Your task to perform on an android device: check data usage Image 0: 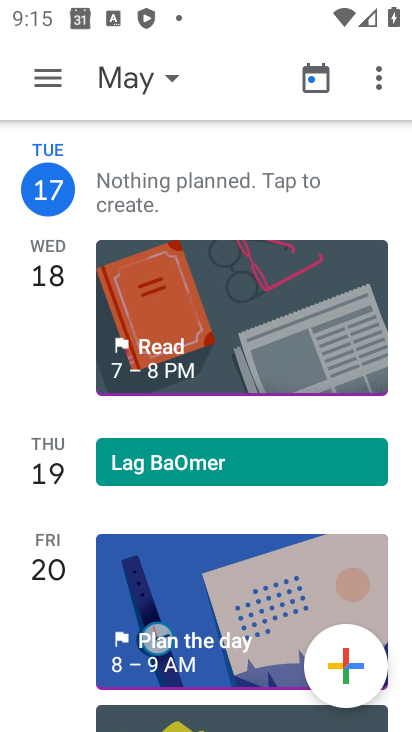
Step 0: press home button
Your task to perform on an android device: check data usage Image 1: 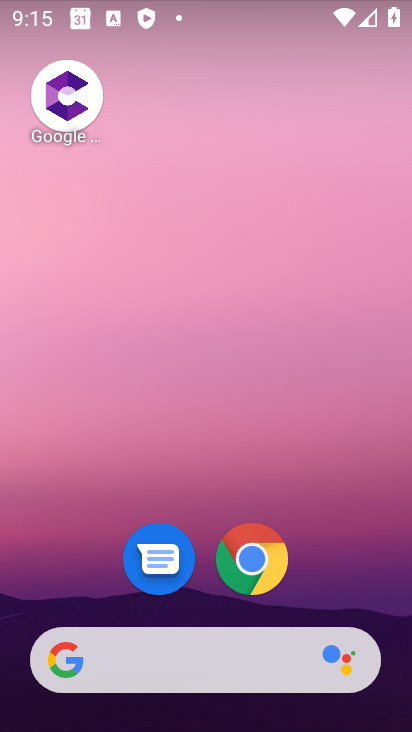
Step 1: drag from (227, 668) to (145, 288)
Your task to perform on an android device: check data usage Image 2: 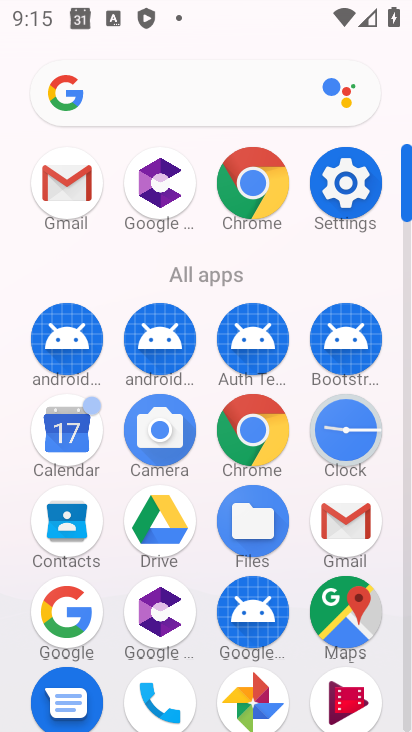
Step 2: click (341, 196)
Your task to perform on an android device: check data usage Image 3: 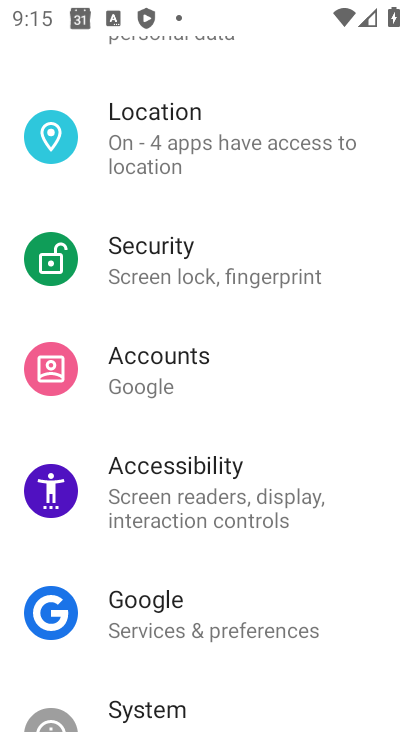
Step 3: drag from (190, 200) to (187, 624)
Your task to perform on an android device: check data usage Image 4: 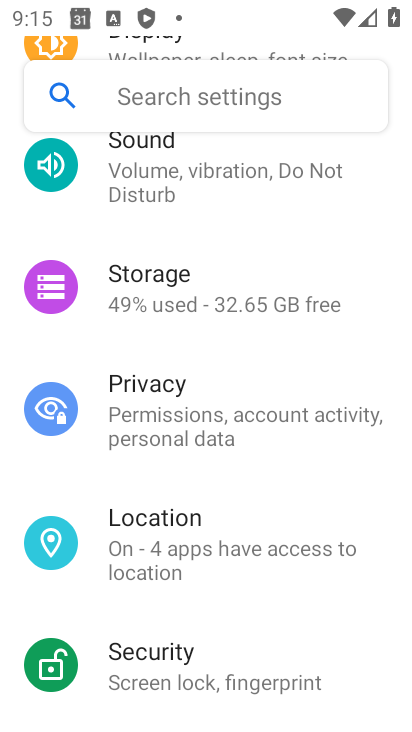
Step 4: drag from (149, 208) to (116, 641)
Your task to perform on an android device: check data usage Image 5: 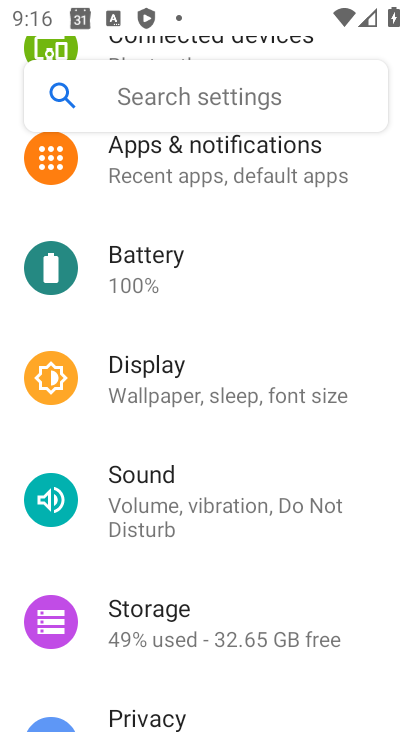
Step 5: drag from (156, 194) to (123, 597)
Your task to perform on an android device: check data usage Image 6: 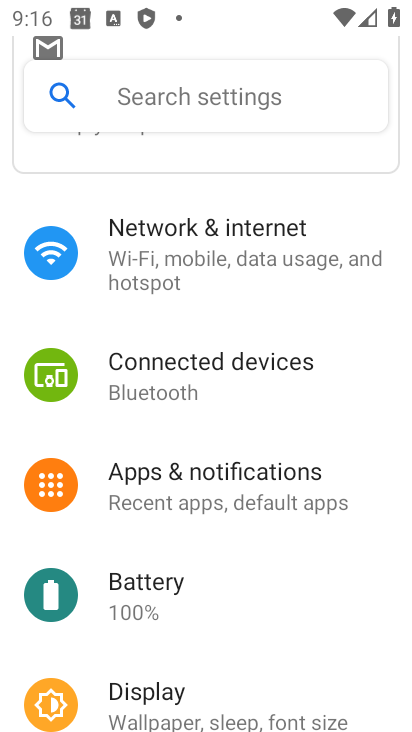
Step 6: click (190, 261)
Your task to perform on an android device: check data usage Image 7: 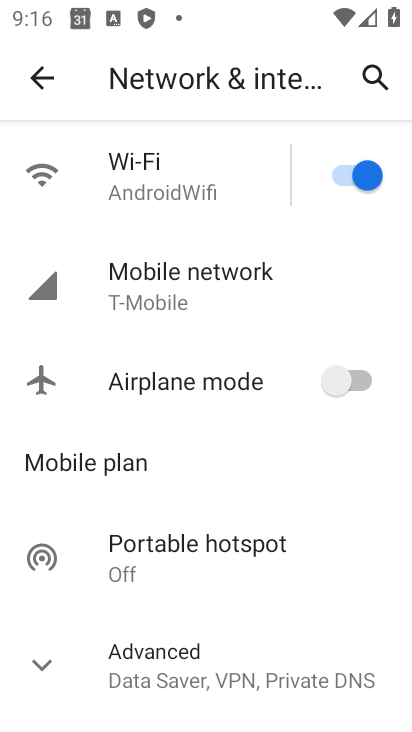
Step 7: click (187, 277)
Your task to perform on an android device: check data usage Image 8: 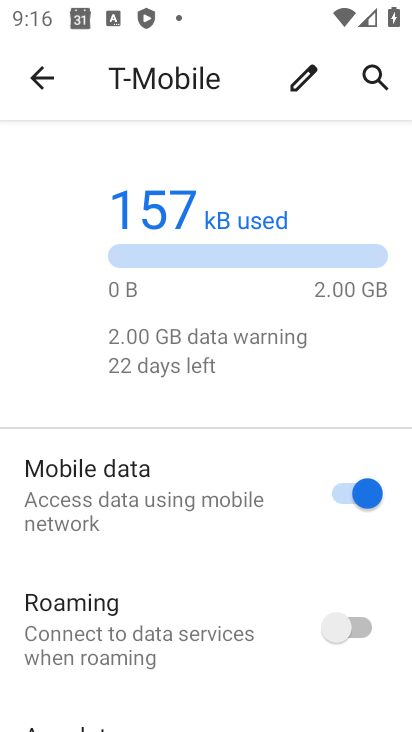
Step 8: task complete